Your task to perform on an android device: Open Amazon Image 0: 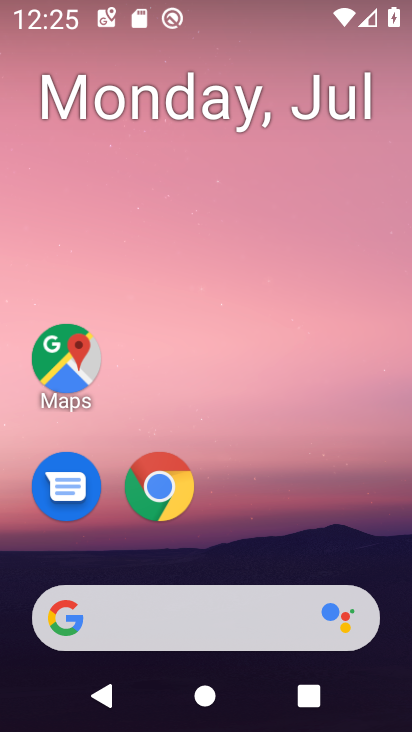
Step 0: press home button
Your task to perform on an android device: Open Amazon Image 1: 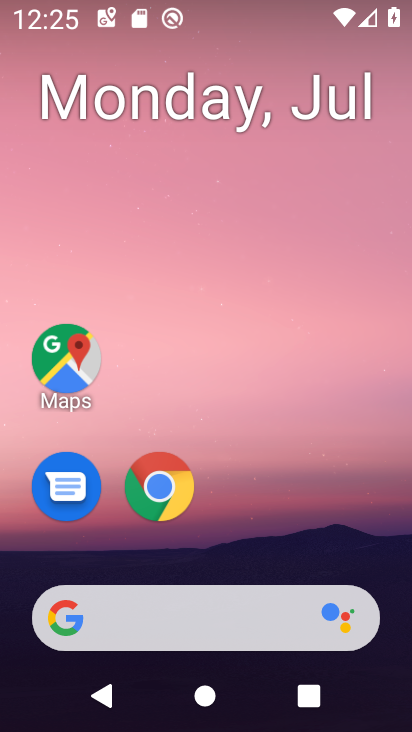
Step 1: drag from (385, 539) to (379, 106)
Your task to perform on an android device: Open Amazon Image 2: 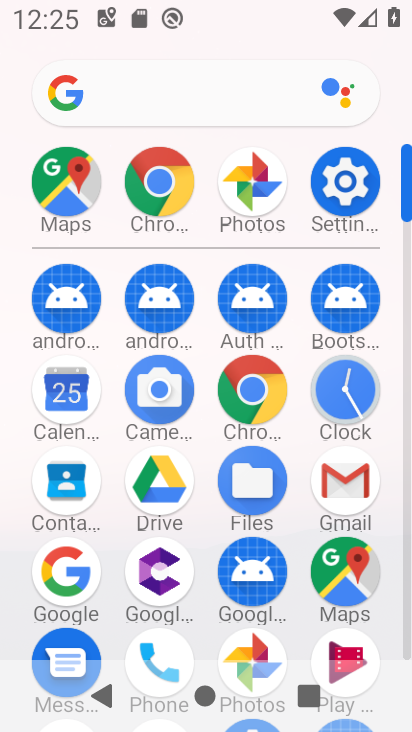
Step 2: click (259, 387)
Your task to perform on an android device: Open Amazon Image 3: 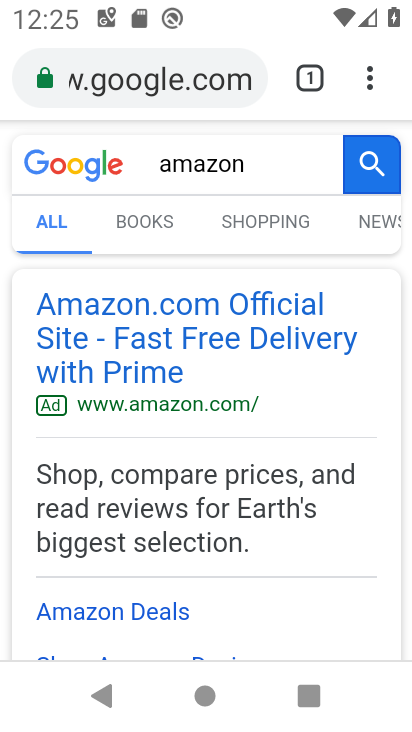
Step 3: task complete